Your task to perform on an android device: Search for sushi restaurants on Maps Image 0: 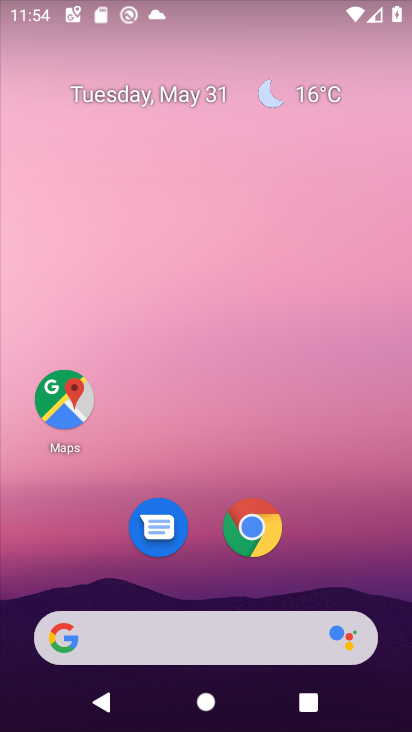
Step 0: click (64, 401)
Your task to perform on an android device: Search for sushi restaurants on Maps Image 1: 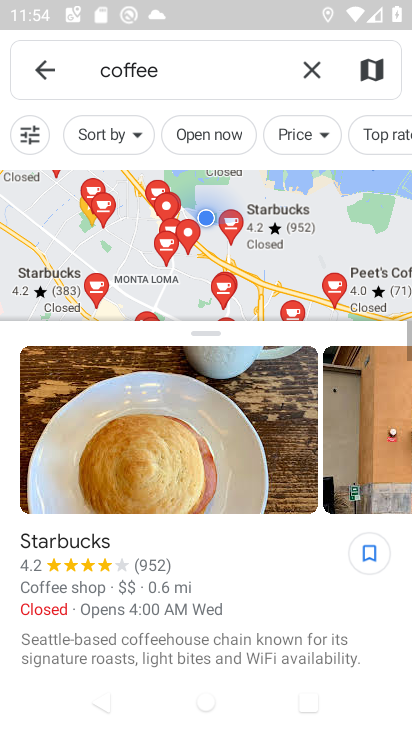
Step 1: click (313, 75)
Your task to perform on an android device: Search for sushi restaurants on Maps Image 2: 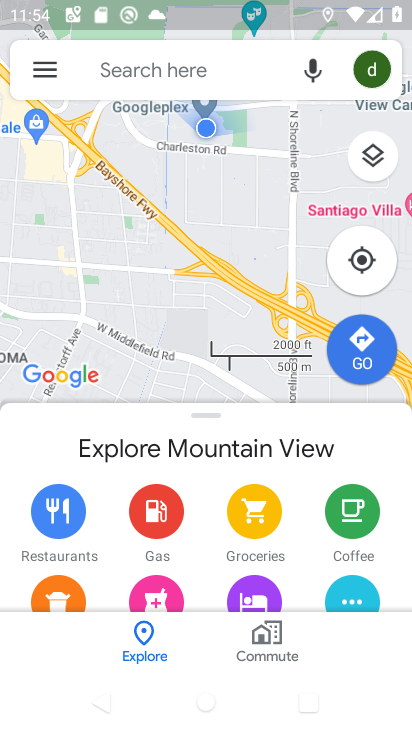
Step 2: click (124, 68)
Your task to perform on an android device: Search for sushi restaurants on Maps Image 3: 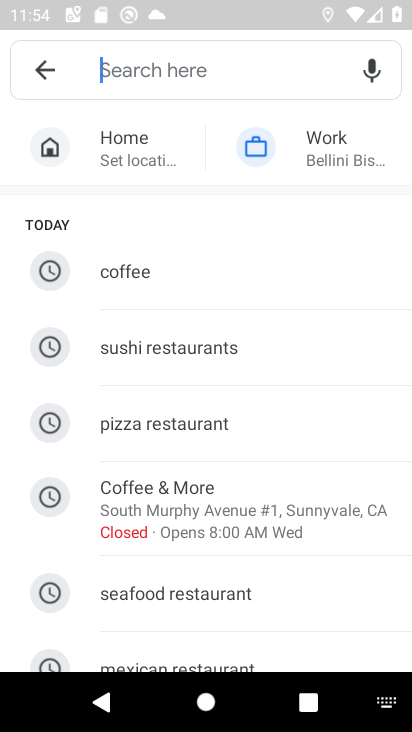
Step 3: type "sushi restaurants"
Your task to perform on an android device: Search for sushi restaurants on Maps Image 4: 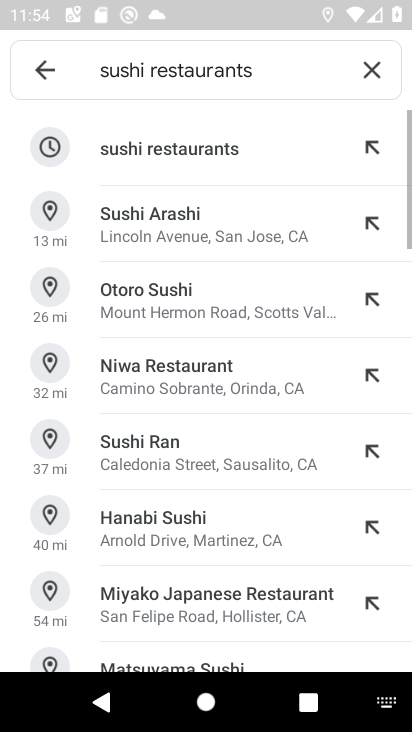
Step 4: click (157, 153)
Your task to perform on an android device: Search for sushi restaurants on Maps Image 5: 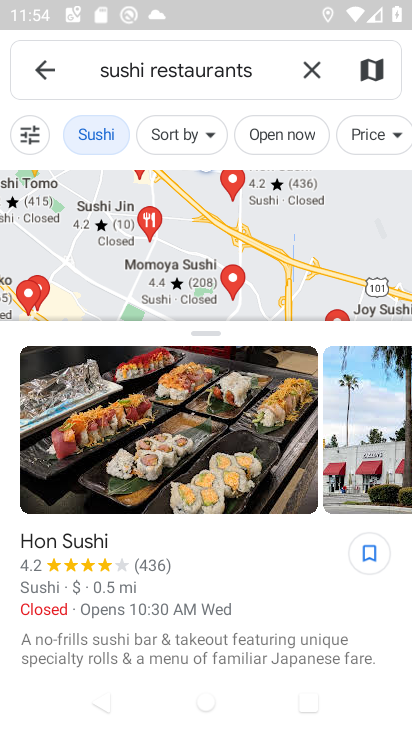
Step 5: task complete